Your task to perform on an android device: find photos in the google photos app Image 0: 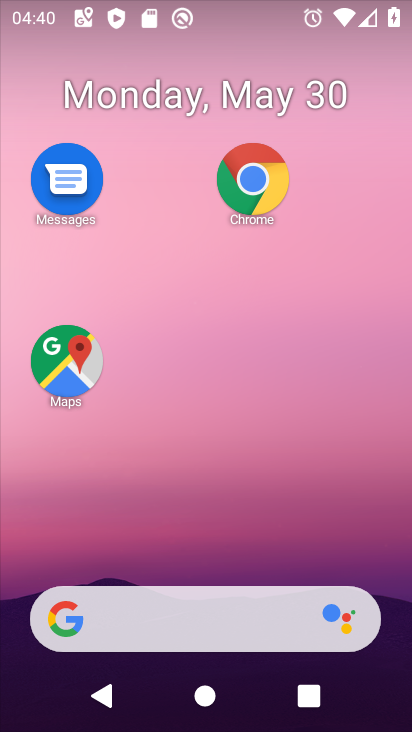
Step 0: drag from (171, 557) to (167, 88)
Your task to perform on an android device: find photos in the google photos app Image 1: 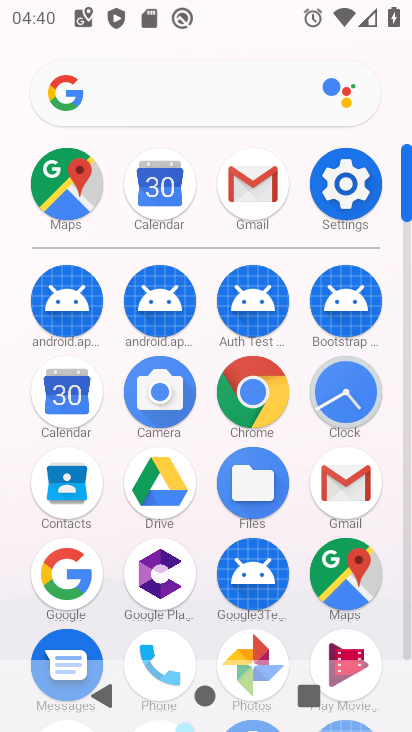
Step 1: drag from (206, 618) to (206, 361)
Your task to perform on an android device: find photos in the google photos app Image 2: 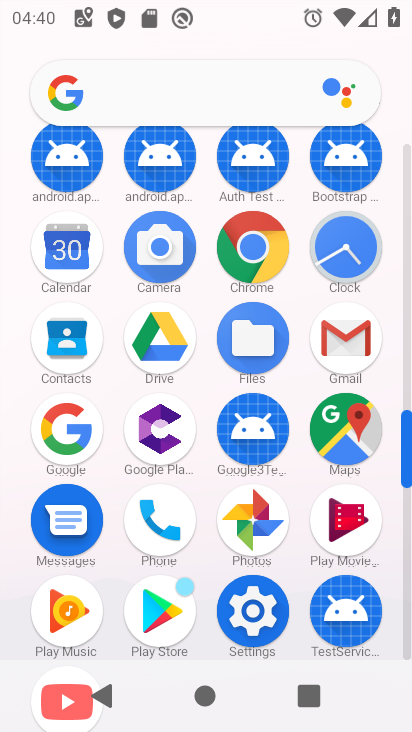
Step 2: click (259, 531)
Your task to perform on an android device: find photos in the google photos app Image 3: 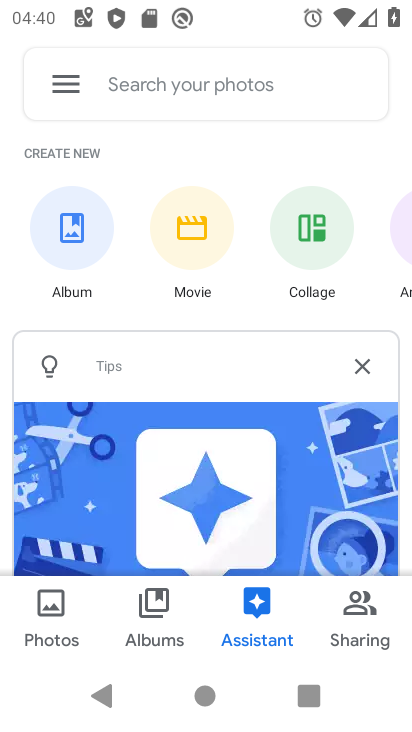
Step 3: click (49, 631)
Your task to perform on an android device: find photos in the google photos app Image 4: 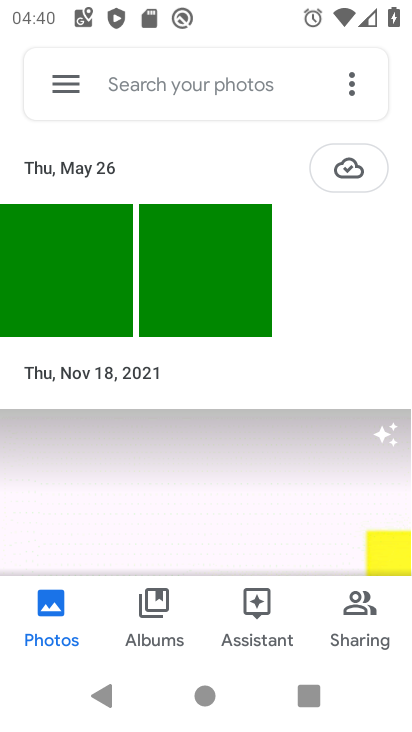
Step 4: task complete